Your task to perform on an android device: What's the weather going to be tomorrow? Image 0: 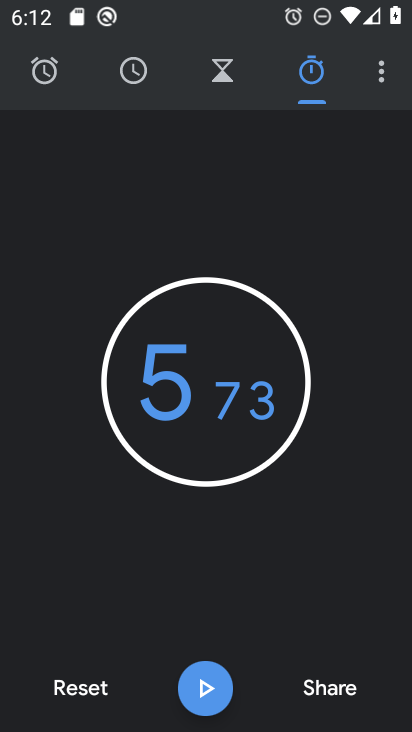
Step 0: press home button
Your task to perform on an android device: What's the weather going to be tomorrow? Image 1: 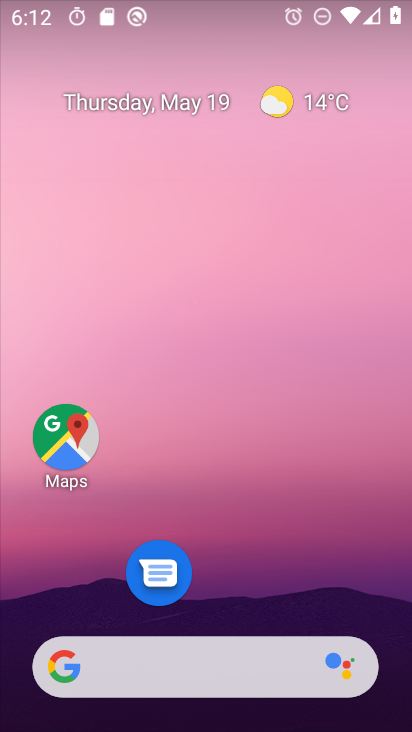
Step 1: click (247, 679)
Your task to perform on an android device: What's the weather going to be tomorrow? Image 2: 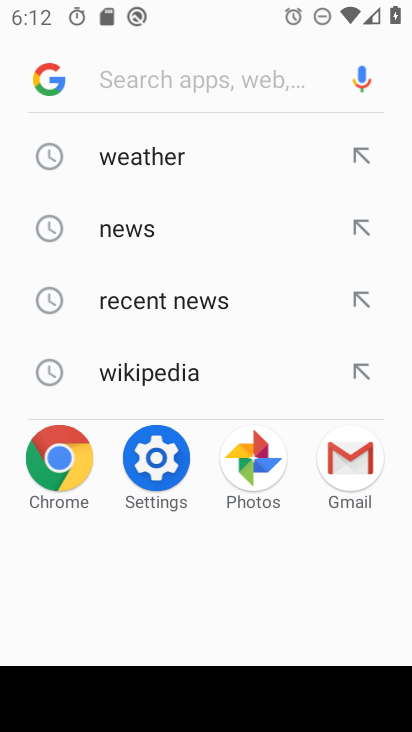
Step 2: click (150, 171)
Your task to perform on an android device: What's the weather going to be tomorrow? Image 3: 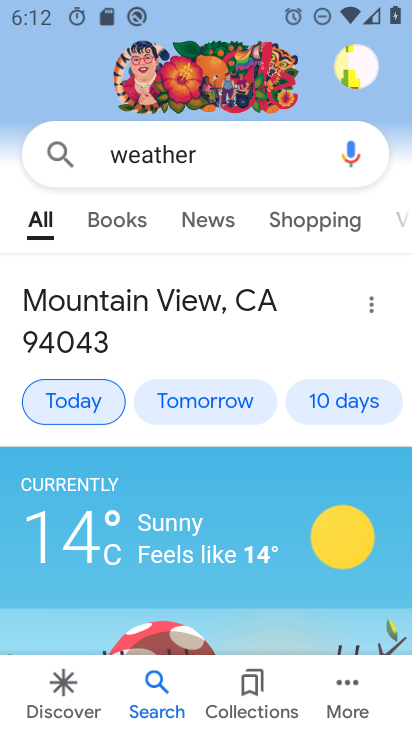
Step 3: task complete